Your task to perform on an android device: Go to Maps Image 0: 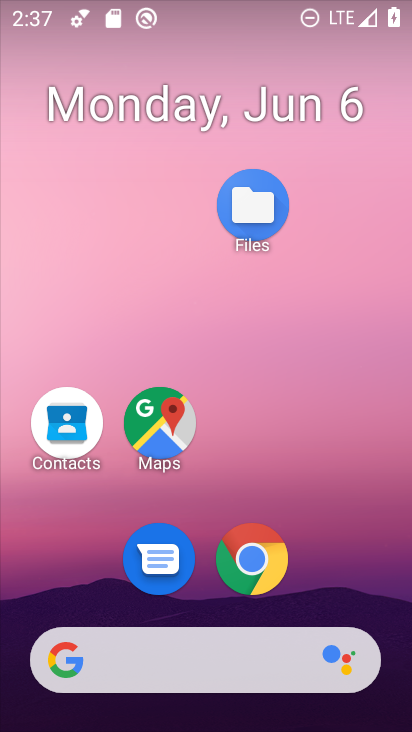
Step 0: drag from (251, 604) to (278, 75)
Your task to perform on an android device: Go to Maps Image 1: 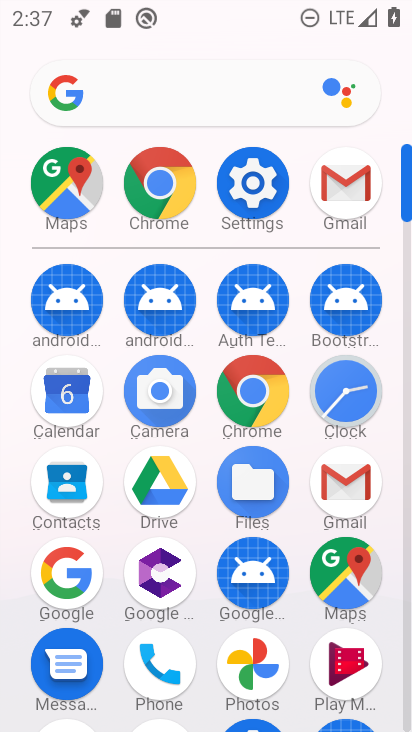
Step 1: click (350, 572)
Your task to perform on an android device: Go to Maps Image 2: 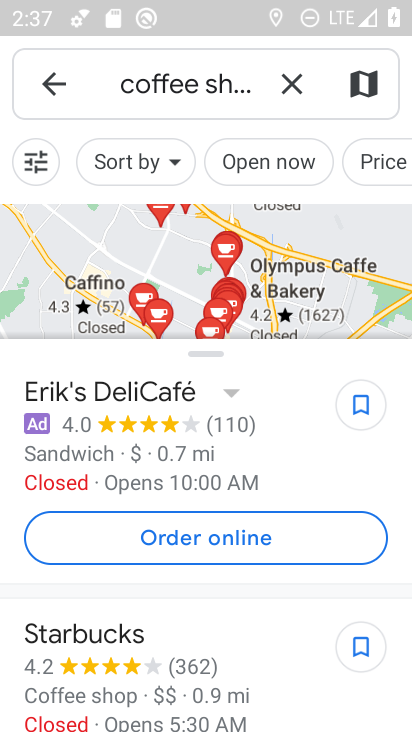
Step 2: task complete